Your task to perform on an android device: empty trash in google photos Image 0: 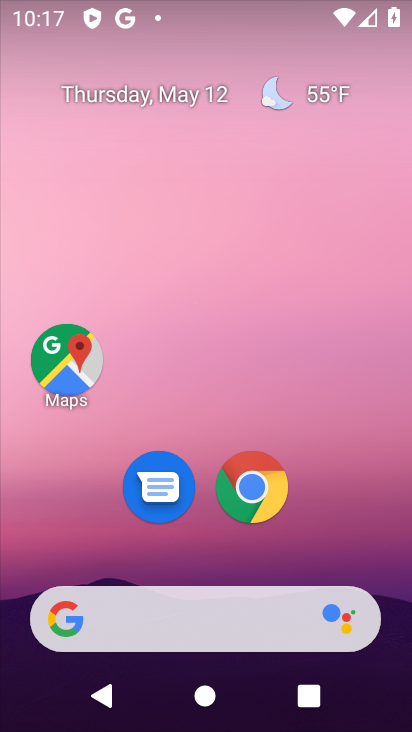
Step 0: drag from (346, 537) to (352, 21)
Your task to perform on an android device: empty trash in google photos Image 1: 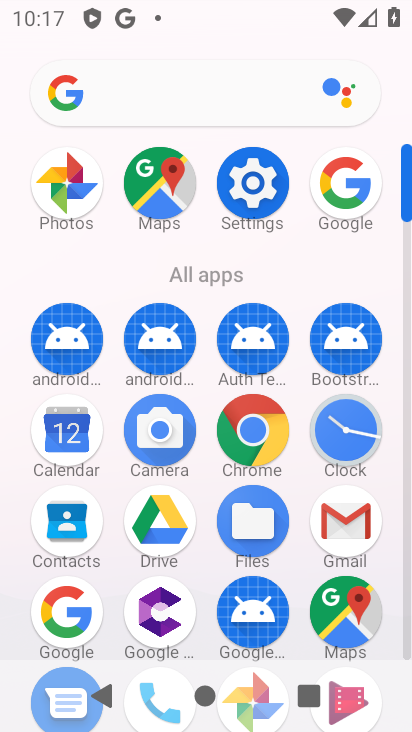
Step 1: click (67, 193)
Your task to perform on an android device: empty trash in google photos Image 2: 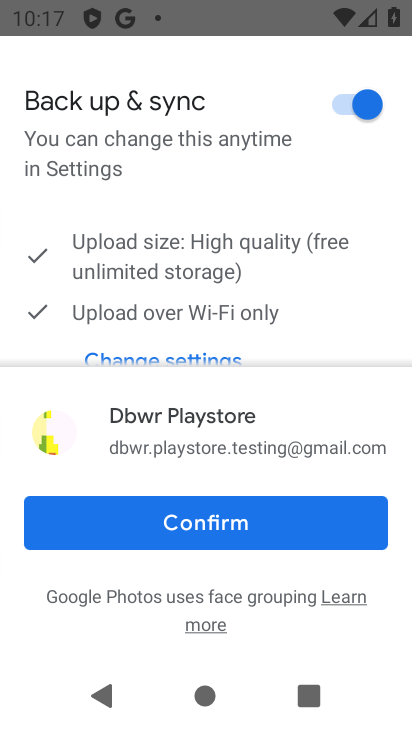
Step 2: click (200, 522)
Your task to perform on an android device: empty trash in google photos Image 3: 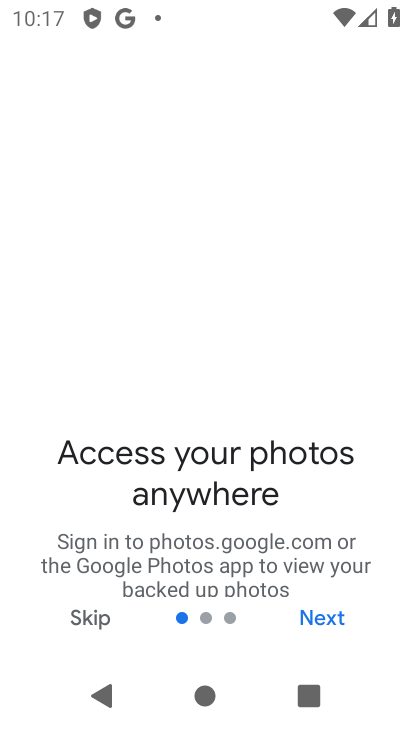
Step 3: click (87, 616)
Your task to perform on an android device: empty trash in google photos Image 4: 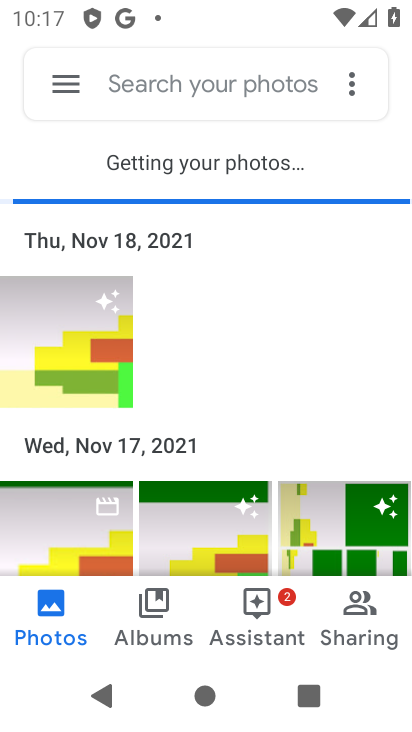
Step 4: click (61, 86)
Your task to perform on an android device: empty trash in google photos Image 5: 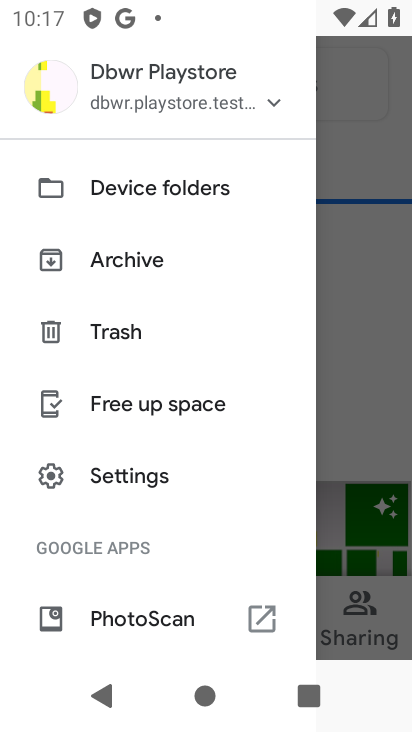
Step 5: click (107, 342)
Your task to perform on an android device: empty trash in google photos Image 6: 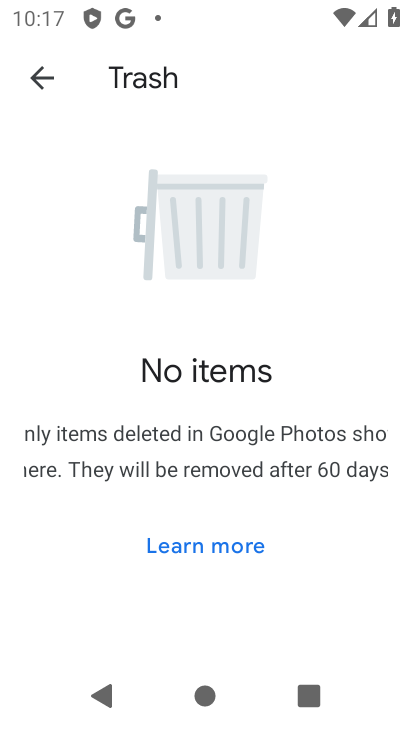
Step 6: task complete